Your task to perform on an android device: turn on location history Image 0: 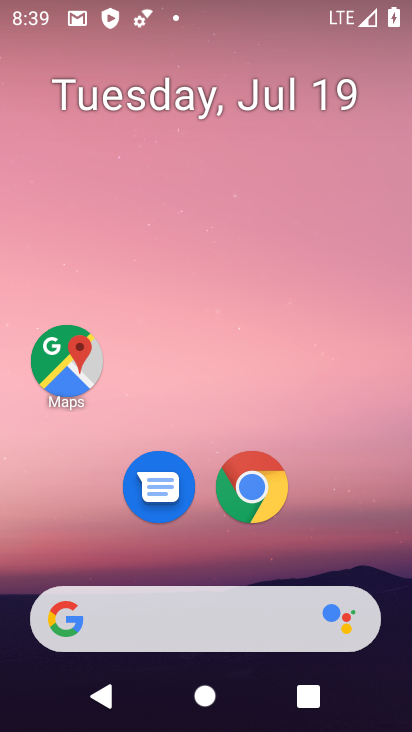
Step 0: drag from (108, 549) to (227, 45)
Your task to perform on an android device: turn on location history Image 1: 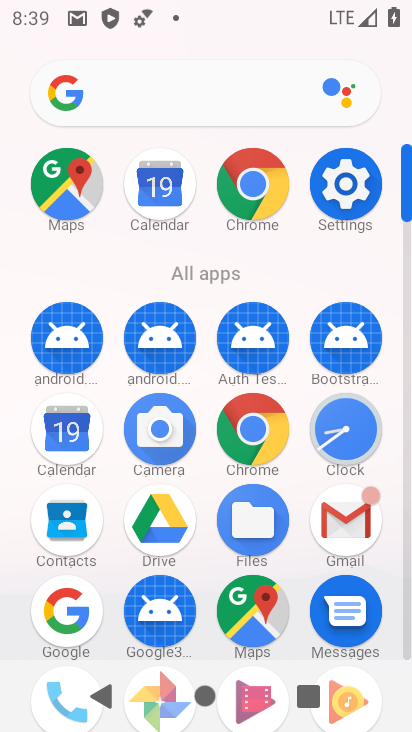
Step 1: click (361, 193)
Your task to perform on an android device: turn on location history Image 2: 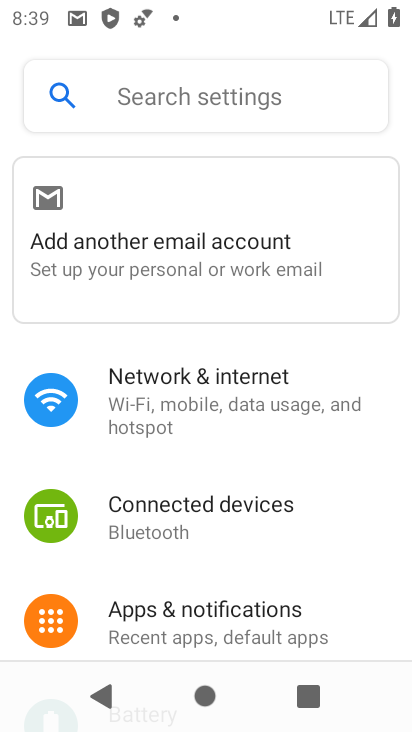
Step 2: drag from (196, 587) to (278, 7)
Your task to perform on an android device: turn on location history Image 3: 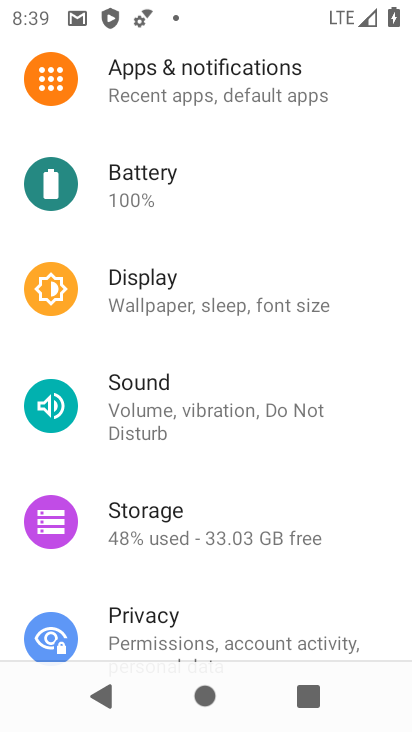
Step 3: drag from (164, 621) to (247, 132)
Your task to perform on an android device: turn on location history Image 4: 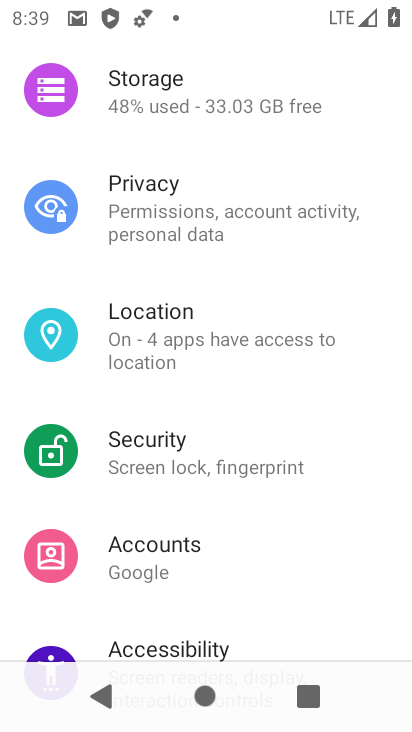
Step 4: click (166, 329)
Your task to perform on an android device: turn on location history Image 5: 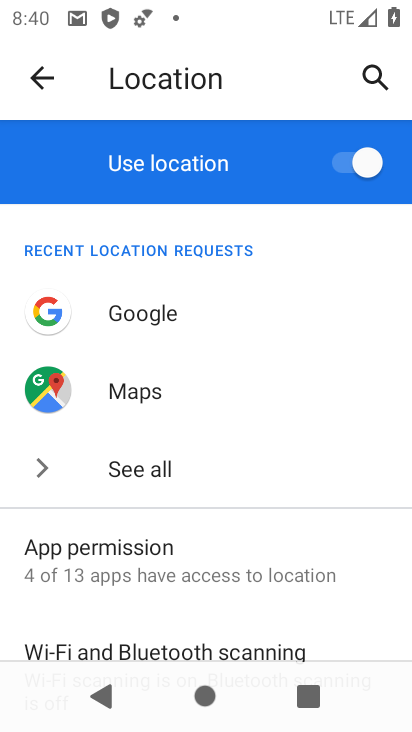
Step 5: drag from (132, 627) to (189, 230)
Your task to perform on an android device: turn on location history Image 6: 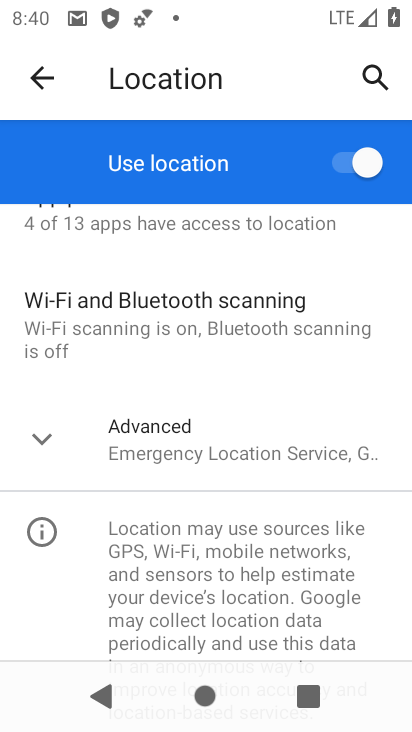
Step 6: click (191, 432)
Your task to perform on an android device: turn on location history Image 7: 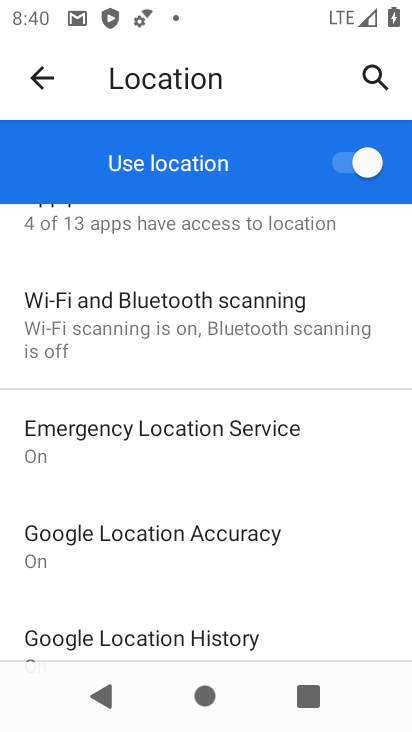
Step 7: click (153, 630)
Your task to perform on an android device: turn on location history Image 8: 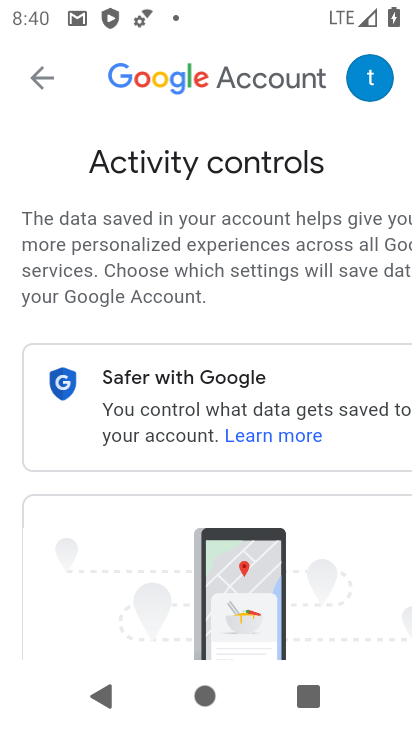
Step 8: task complete